Your task to perform on an android device: Open the stopwatch Image 0: 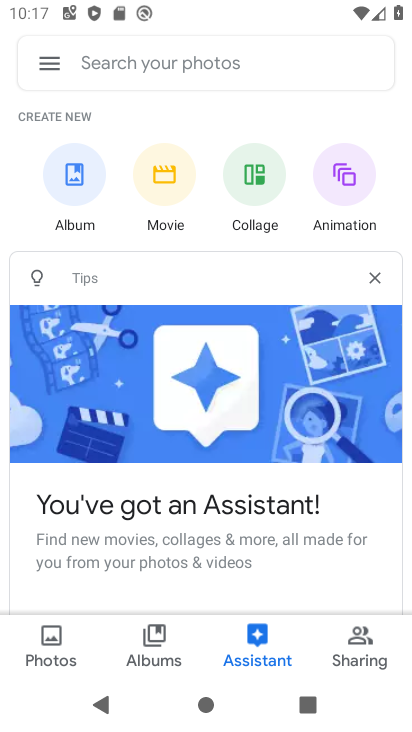
Step 0: press home button
Your task to perform on an android device: Open the stopwatch Image 1: 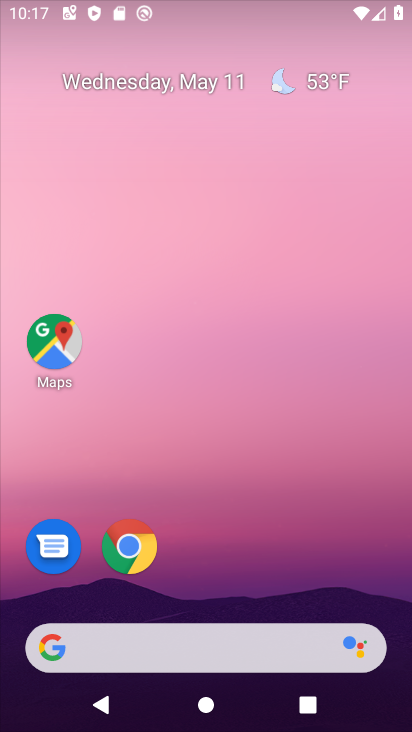
Step 1: drag from (386, 626) to (331, 47)
Your task to perform on an android device: Open the stopwatch Image 2: 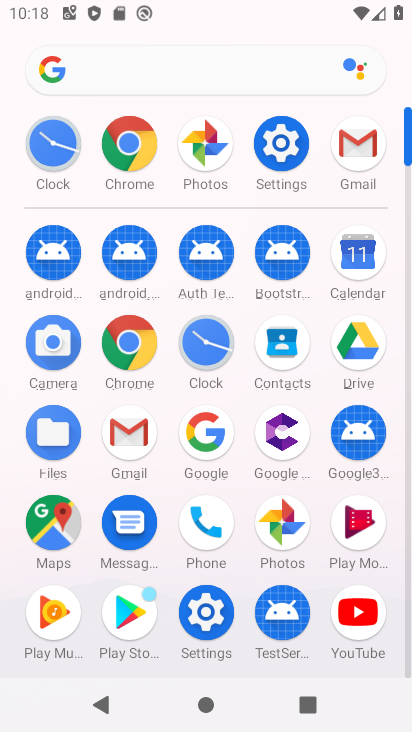
Step 2: click (216, 348)
Your task to perform on an android device: Open the stopwatch Image 3: 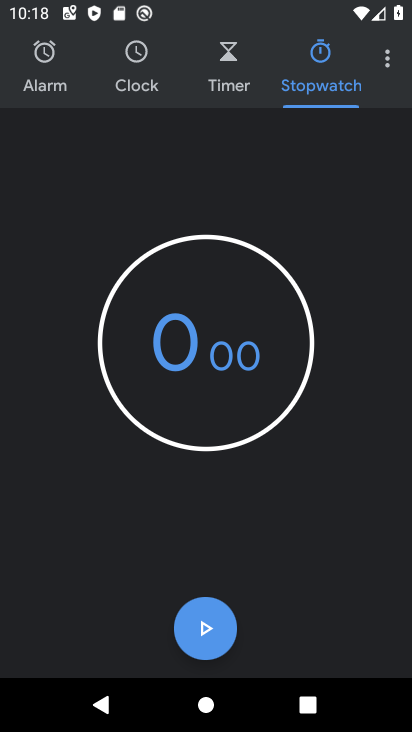
Step 3: task complete